Your task to perform on an android device: Open Reddit.com Image 0: 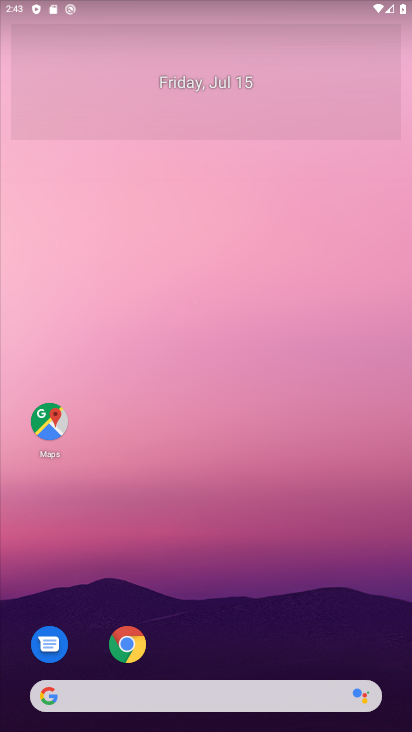
Step 0: click (130, 657)
Your task to perform on an android device: Open Reddit.com Image 1: 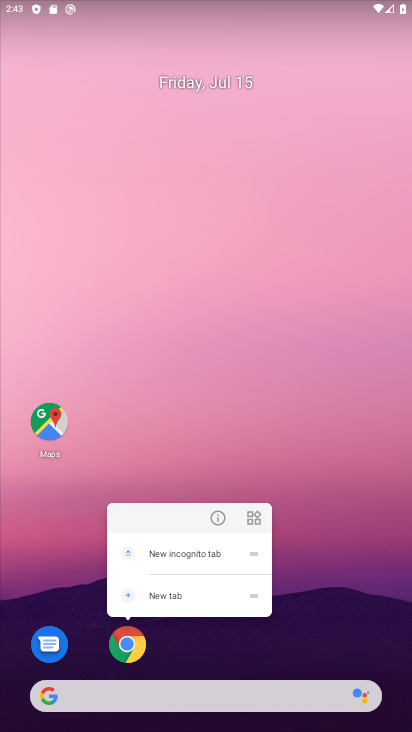
Step 1: click (130, 637)
Your task to perform on an android device: Open Reddit.com Image 2: 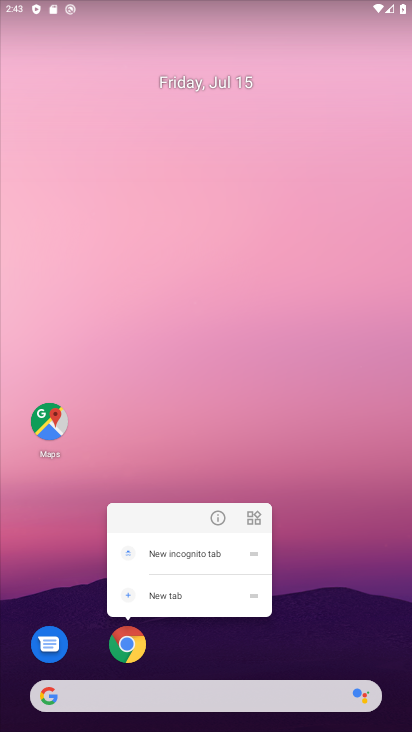
Step 2: click (125, 644)
Your task to perform on an android device: Open Reddit.com Image 3: 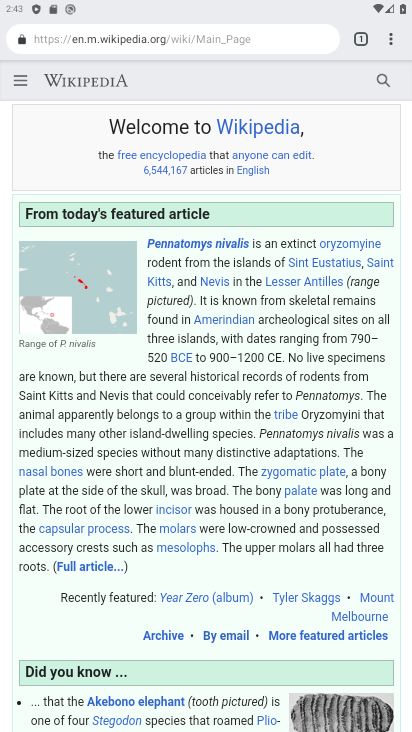
Step 3: click (352, 42)
Your task to perform on an android device: Open Reddit.com Image 4: 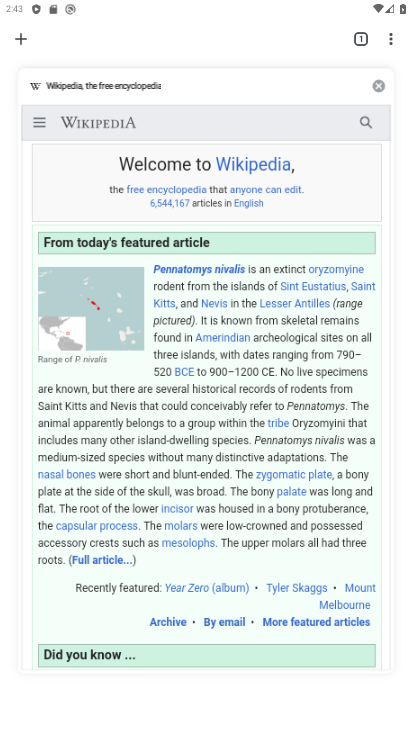
Step 4: click (23, 42)
Your task to perform on an android device: Open Reddit.com Image 5: 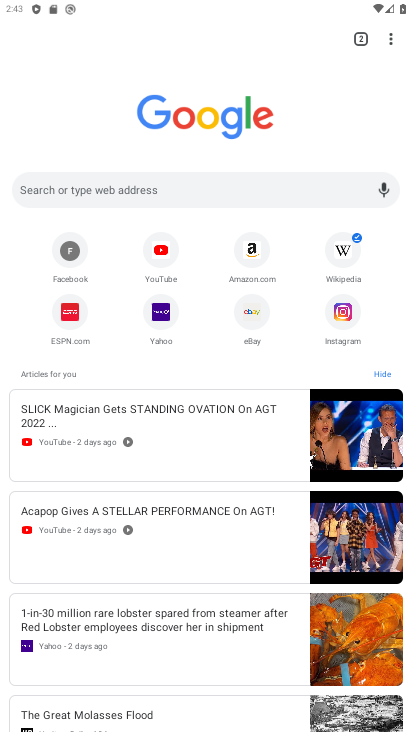
Step 5: click (106, 191)
Your task to perform on an android device: Open Reddit.com Image 6: 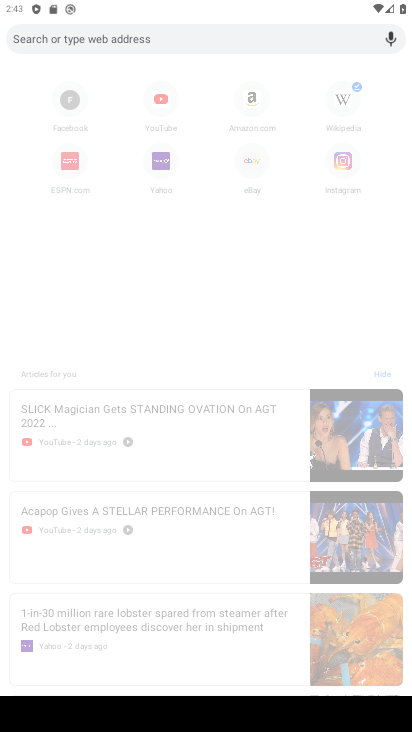
Step 6: type "reddit.com"
Your task to perform on an android device: Open Reddit.com Image 7: 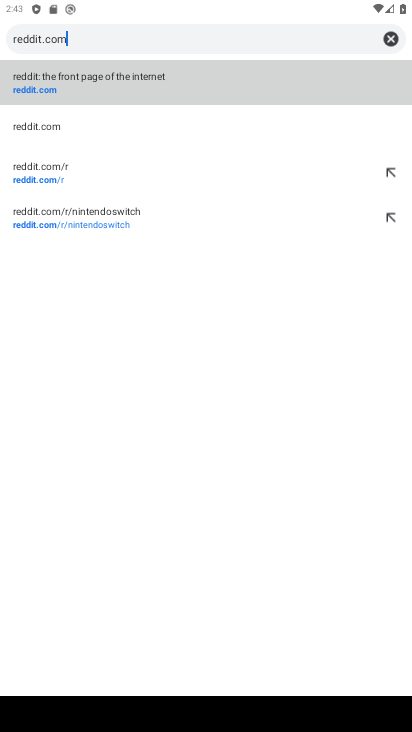
Step 7: click (98, 87)
Your task to perform on an android device: Open Reddit.com Image 8: 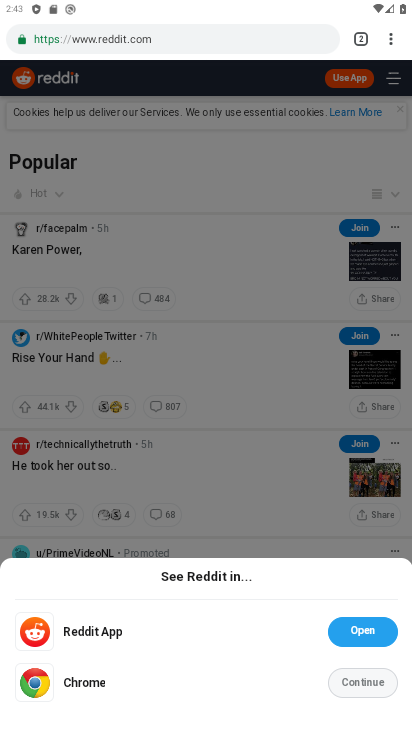
Step 8: task complete